Your task to perform on an android device: see creations saved in the google photos Image 0: 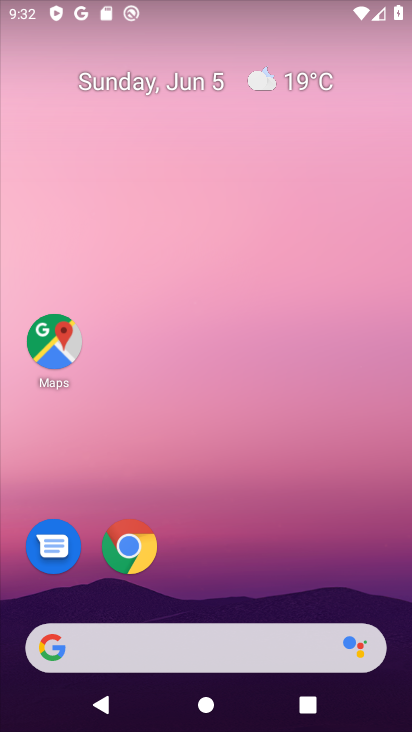
Step 0: drag from (209, 605) to (231, 48)
Your task to perform on an android device: see creations saved in the google photos Image 1: 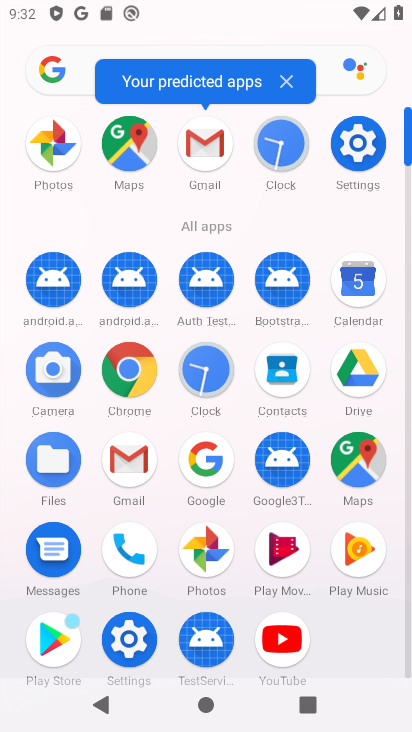
Step 1: click (230, 550)
Your task to perform on an android device: see creations saved in the google photos Image 2: 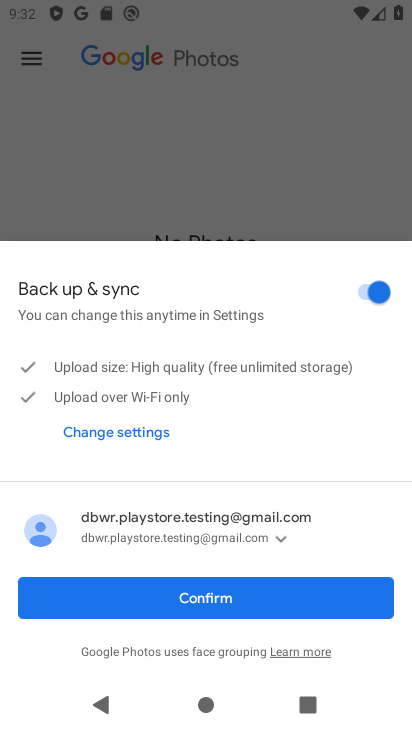
Step 2: click (105, 610)
Your task to perform on an android device: see creations saved in the google photos Image 3: 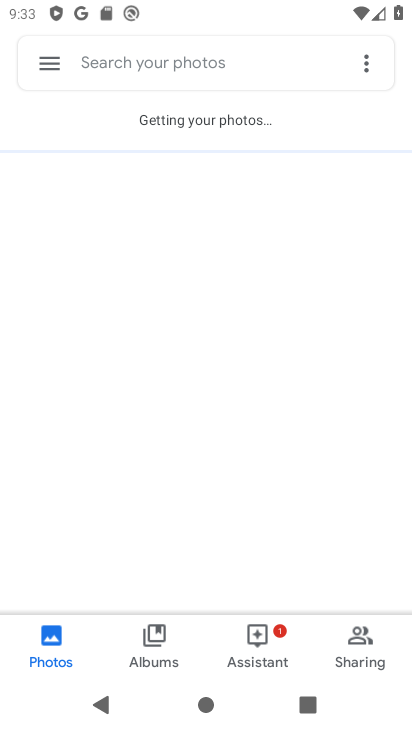
Step 3: click (193, 65)
Your task to perform on an android device: see creations saved in the google photos Image 4: 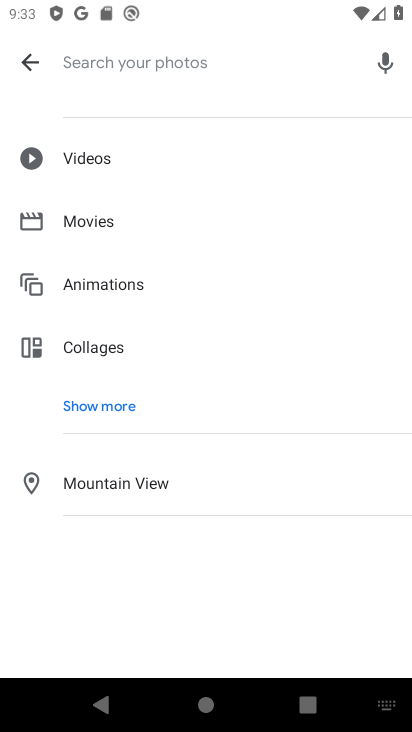
Step 4: click (74, 415)
Your task to perform on an android device: see creations saved in the google photos Image 5: 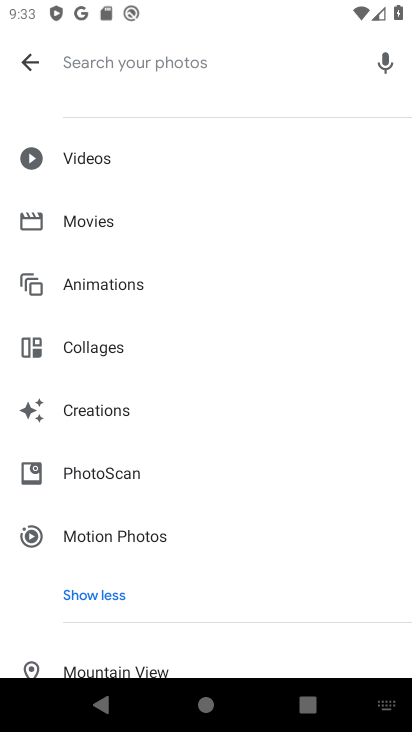
Step 5: click (98, 413)
Your task to perform on an android device: see creations saved in the google photos Image 6: 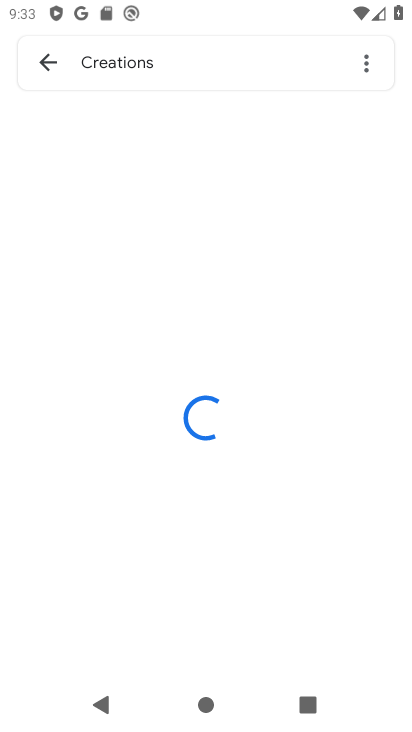
Step 6: task complete